Your task to perform on an android device: open the mobile data screen to see how much data has been used Image 0: 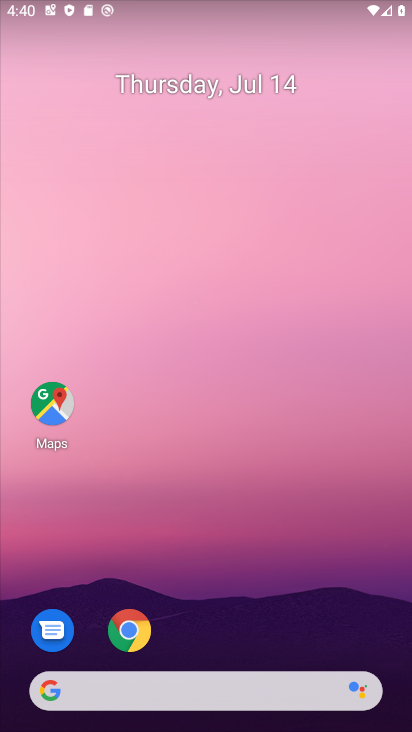
Step 0: drag from (172, 5) to (280, 649)
Your task to perform on an android device: open the mobile data screen to see how much data has been used Image 1: 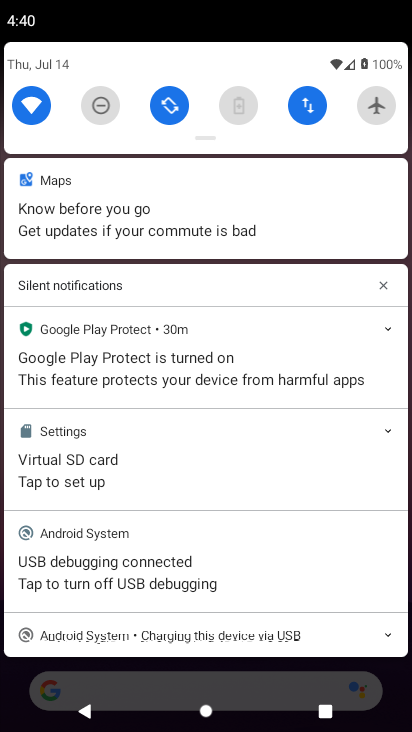
Step 1: click (299, 124)
Your task to perform on an android device: open the mobile data screen to see how much data has been used Image 2: 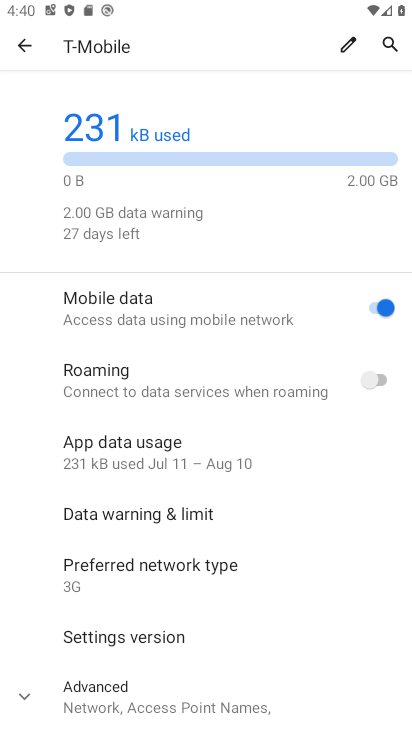
Step 2: click (299, 124)
Your task to perform on an android device: open the mobile data screen to see how much data has been used Image 3: 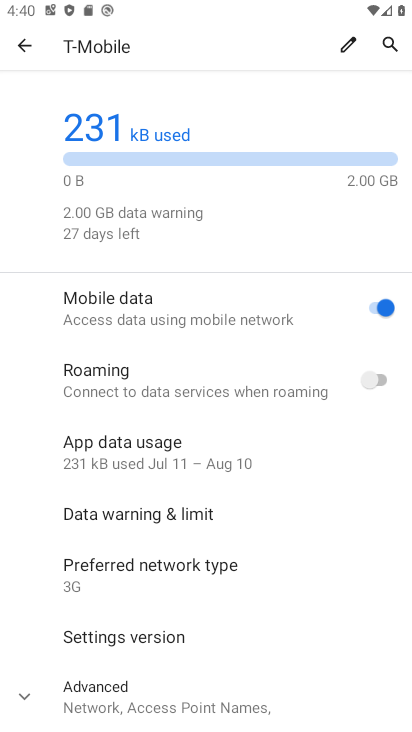
Step 3: task complete